Your task to perform on an android device: Show the shopping cart on target.com. Search for razer huntsman on target.com, select the first entry, and add it to the cart. Image 0: 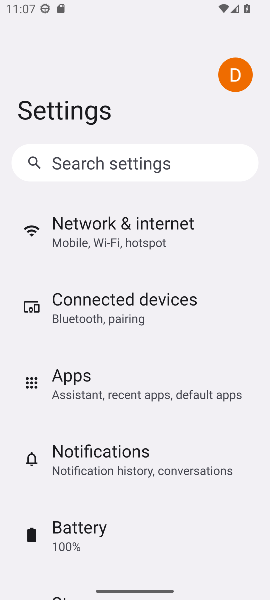
Step 0: press home button
Your task to perform on an android device: Show the shopping cart on target.com. Search for razer huntsman on target.com, select the first entry, and add it to the cart. Image 1: 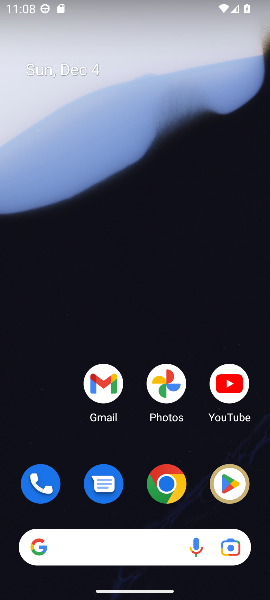
Step 1: click (168, 488)
Your task to perform on an android device: Show the shopping cart on target.com. Search for razer huntsman on target.com, select the first entry, and add it to the cart. Image 2: 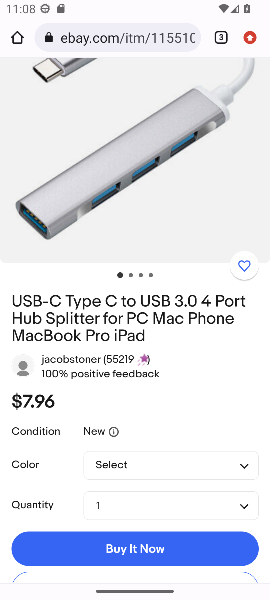
Step 2: click (119, 39)
Your task to perform on an android device: Show the shopping cart on target.com. Search for razer huntsman on target.com, select the first entry, and add it to the cart. Image 3: 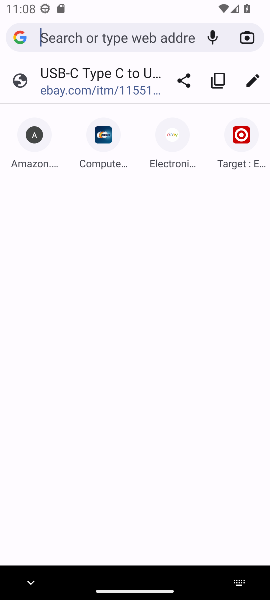
Step 3: click (234, 153)
Your task to perform on an android device: Show the shopping cart on target.com. Search for razer huntsman on target.com, select the first entry, and add it to the cart. Image 4: 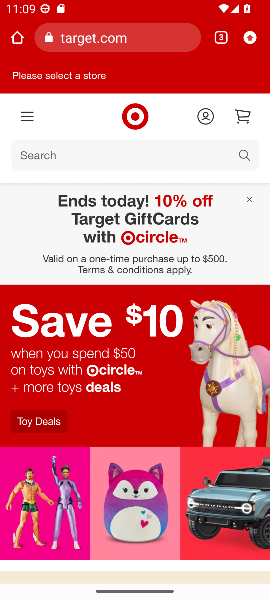
Step 4: click (242, 114)
Your task to perform on an android device: Show the shopping cart on target.com. Search for razer huntsman on target.com, select the first entry, and add it to the cart. Image 5: 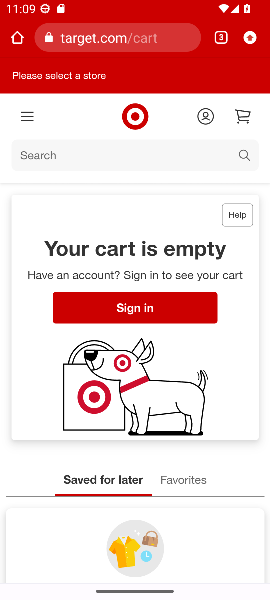
Step 5: click (54, 157)
Your task to perform on an android device: Show the shopping cart on target.com. Search for razer huntsman on target.com, select the first entry, and add it to the cart. Image 6: 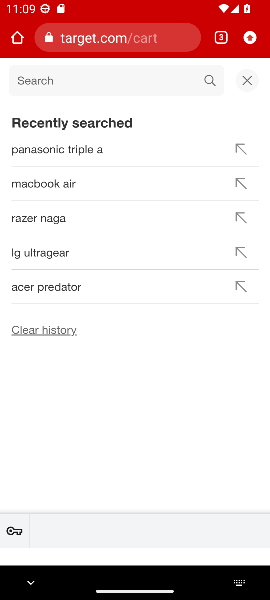
Step 6: type "razer huntsman"
Your task to perform on an android device: Show the shopping cart on target.com. Search for razer huntsman on target.com, select the first entry, and add it to the cart. Image 7: 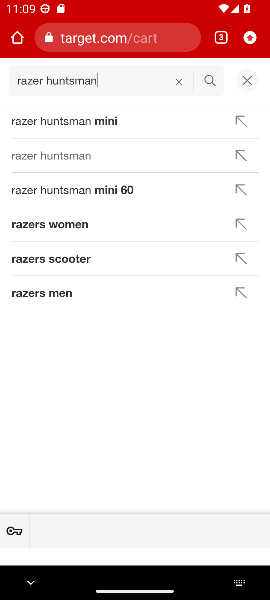
Step 7: click (207, 80)
Your task to perform on an android device: Show the shopping cart on target.com. Search for razer huntsman on target.com, select the first entry, and add it to the cart. Image 8: 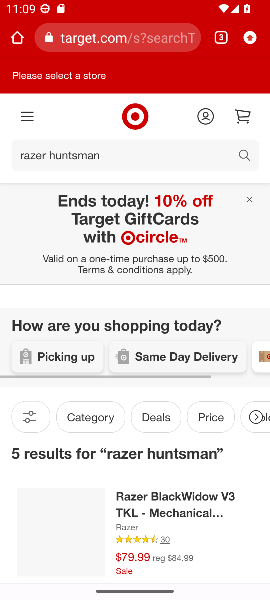
Step 8: task complete